Your task to perform on an android device: refresh tabs in the chrome app Image 0: 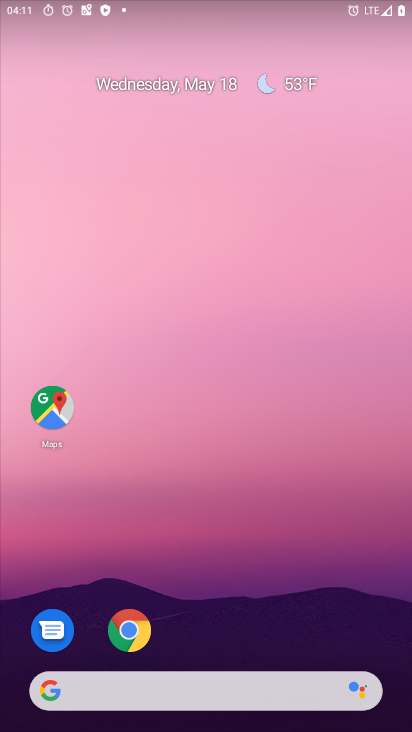
Step 0: click (131, 643)
Your task to perform on an android device: refresh tabs in the chrome app Image 1: 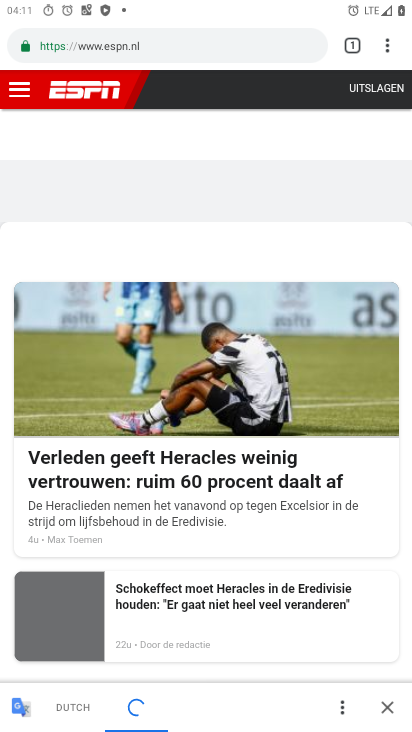
Step 1: click (390, 48)
Your task to perform on an android device: refresh tabs in the chrome app Image 2: 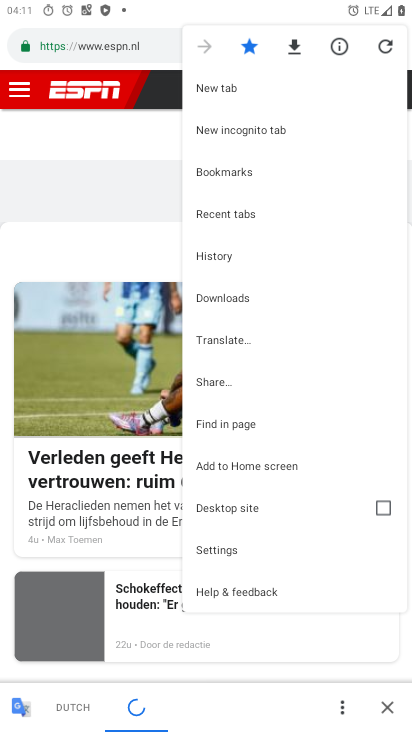
Step 2: click (386, 45)
Your task to perform on an android device: refresh tabs in the chrome app Image 3: 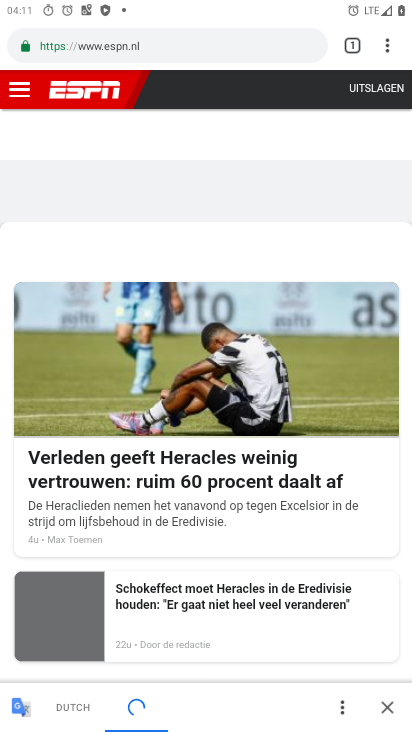
Step 3: task complete